Your task to perform on an android device: open a new tab in the chrome app Image 0: 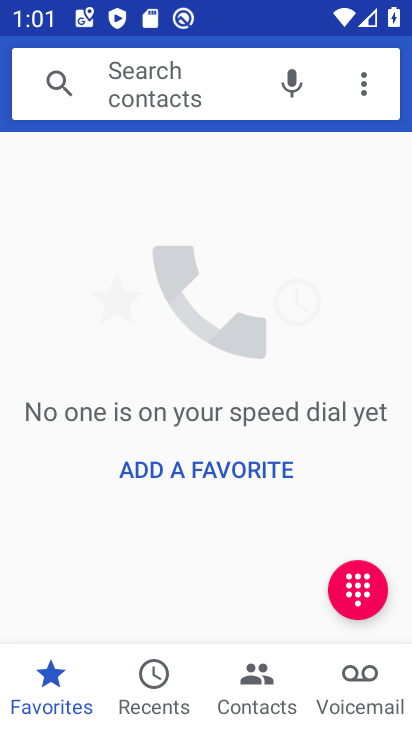
Step 0: press home button
Your task to perform on an android device: open a new tab in the chrome app Image 1: 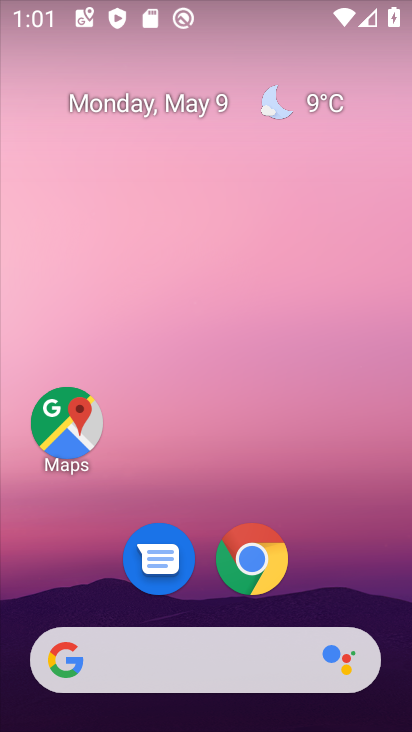
Step 1: drag from (312, 585) to (316, 285)
Your task to perform on an android device: open a new tab in the chrome app Image 2: 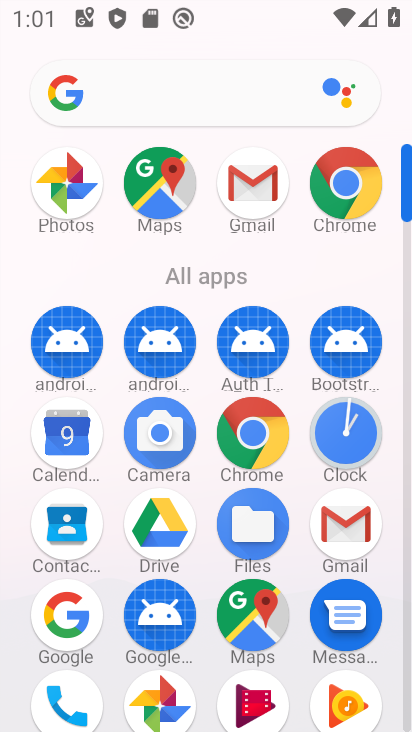
Step 2: click (233, 438)
Your task to perform on an android device: open a new tab in the chrome app Image 3: 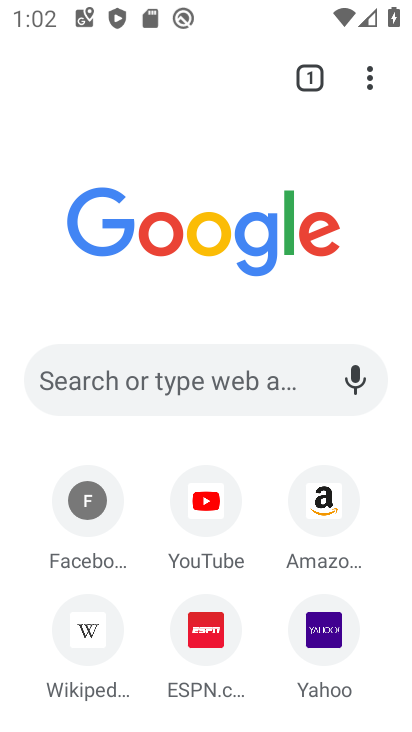
Step 3: task complete